Your task to perform on an android device: delete location history Image 0: 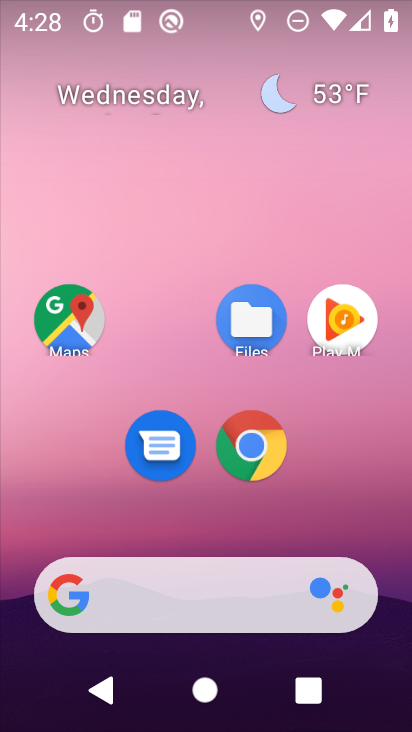
Step 0: drag from (353, 480) to (353, 199)
Your task to perform on an android device: delete location history Image 1: 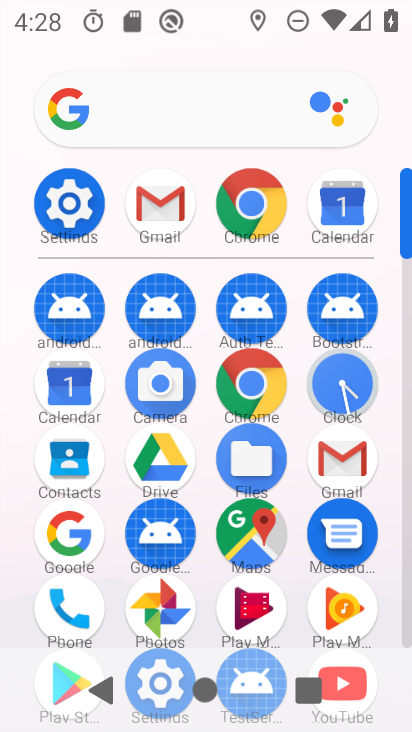
Step 1: click (54, 205)
Your task to perform on an android device: delete location history Image 2: 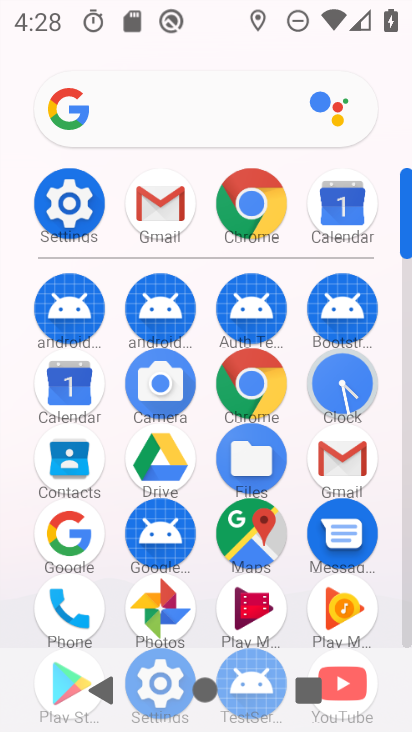
Step 2: click (54, 205)
Your task to perform on an android device: delete location history Image 3: 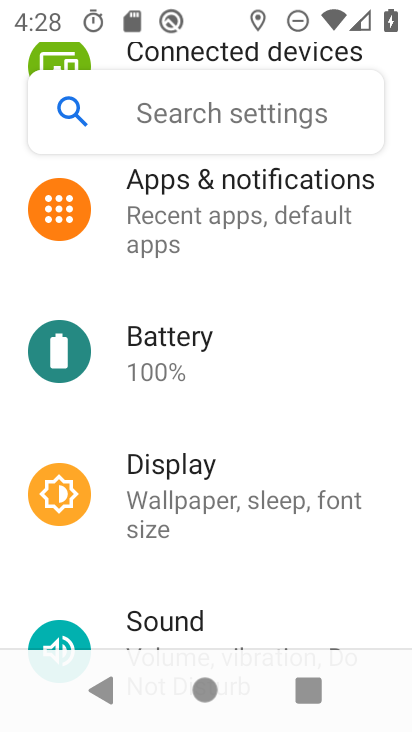
Step 3: drag from (291, 566) to (227, 243)
Your task to perform on an android device: delete location history Image 4: 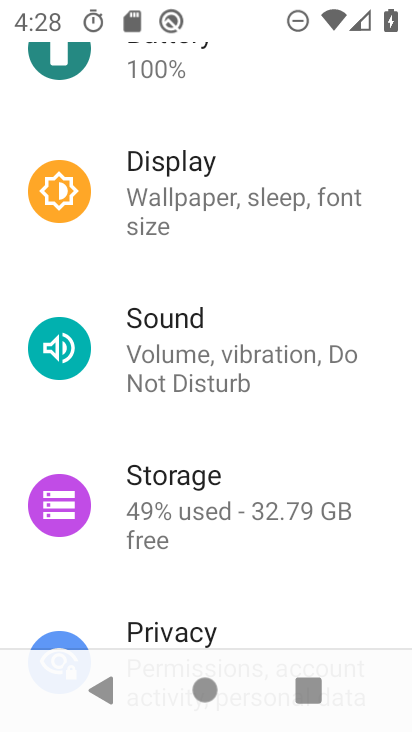
Step 4: drag from (244, 459) to (232, 247)
Your task to perform on an android device: delete location history Image 5: 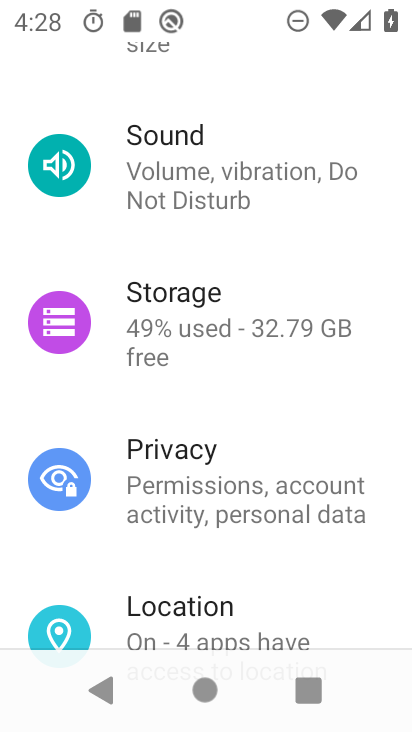
Step 5: click (278, 596)
Your task to perform on an android device: delete location history Image 6: 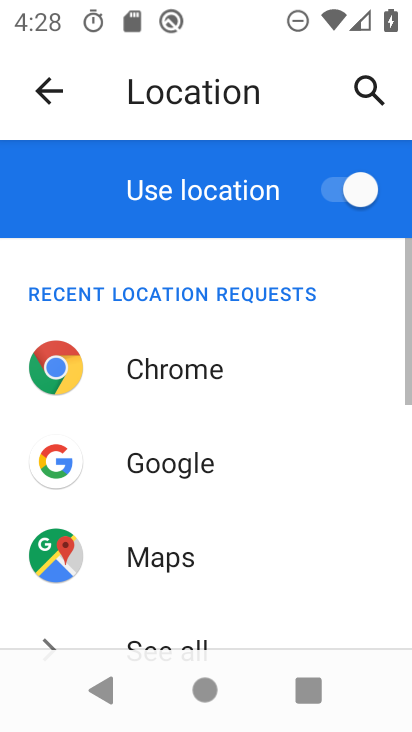
Step 6: drag from (246, 518) to (232, 181)
Your task to perform on an android device: delete location history Image 7: 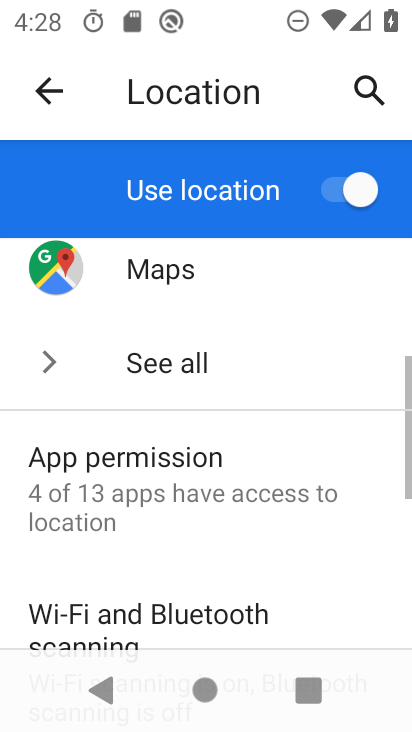
Step 7: drag from (228, 538) to (215, 194)
Your task to perform on an android device: delete location history Image 8: 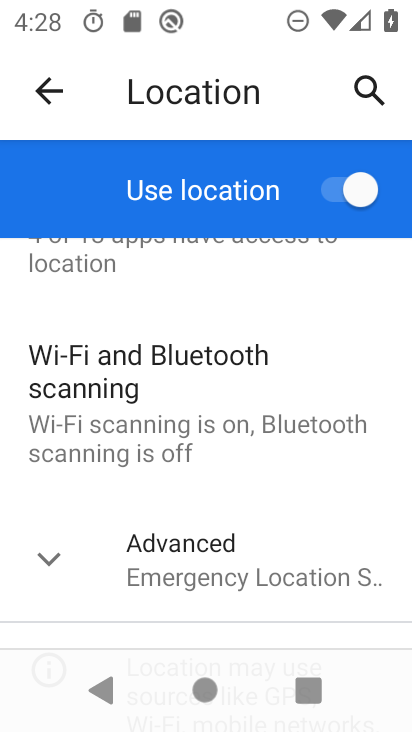
Step 8: click (234, 547)
Your task to perform on an android device: delete location history Image 9: 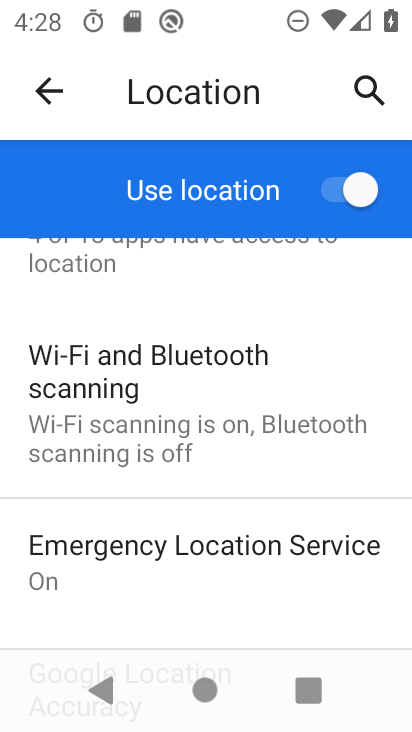
Step 9: drag from (207, 558) to (190, 163)
Your task to perform on an android device: delete location history Image 10: 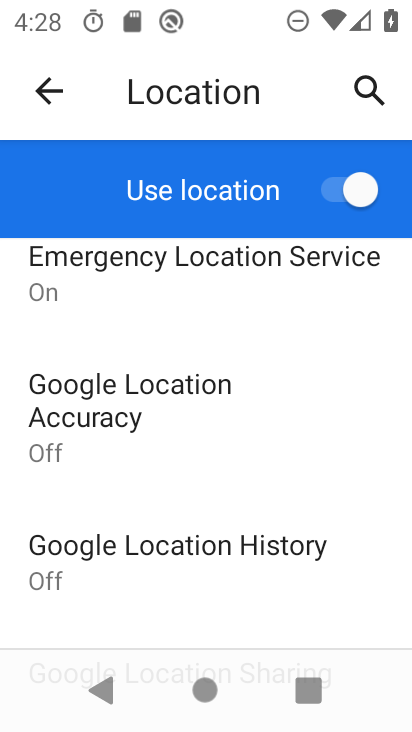
Step 10: click (208, 541)
Your task to perform on an android device: delete location history Image 11: 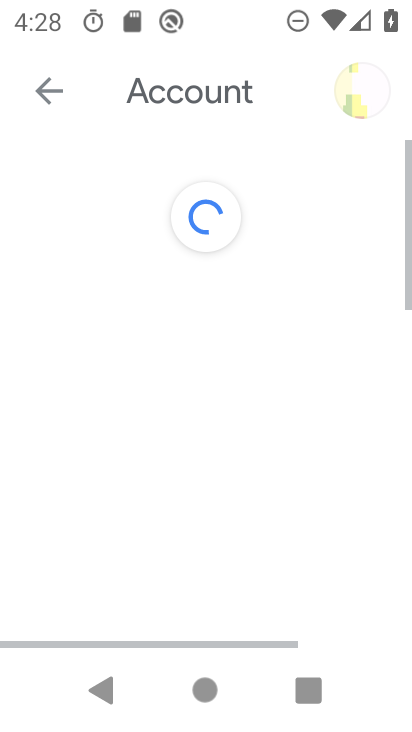
Step 11: drag from (195, 511) to (224, 204)
Your task to perform on an android device: delete location history Image 12: 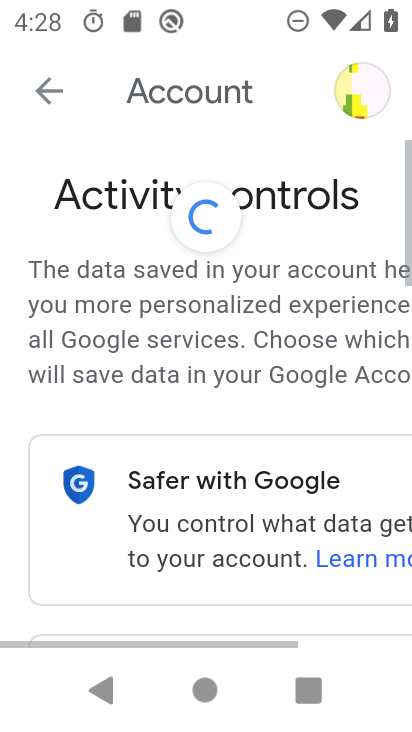
Step 12: drag from (207, 474) to (248, 127)
Your task to perform on an android device: delete location history Image 13: 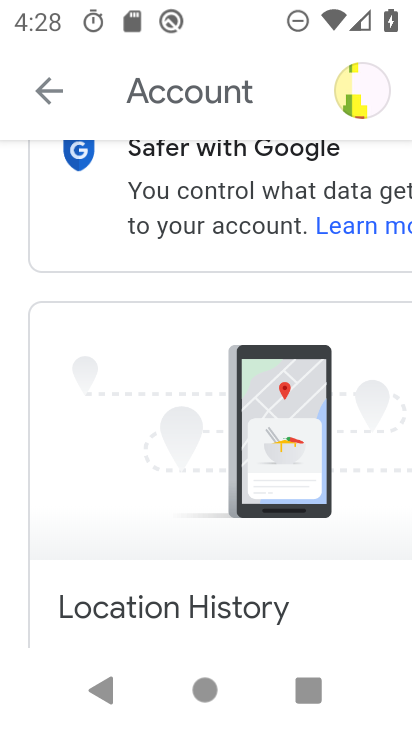
Step 13: drag from (248, 452) to (271, 164)
Your task to perform on an android device: delete location history Image 14: 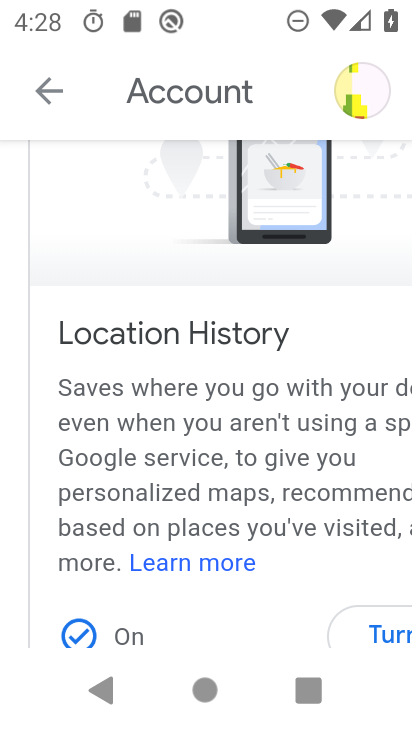
Step 14: drag from (266, 541) to (285, 179)
Your task to perform on an android device: delete location history Image 15: 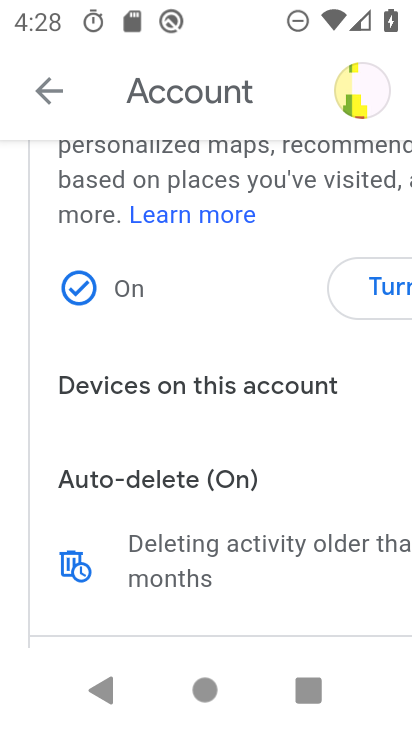
Step 15: click (121, 548)
Your task to perform on an android device: delete location history Image 16: 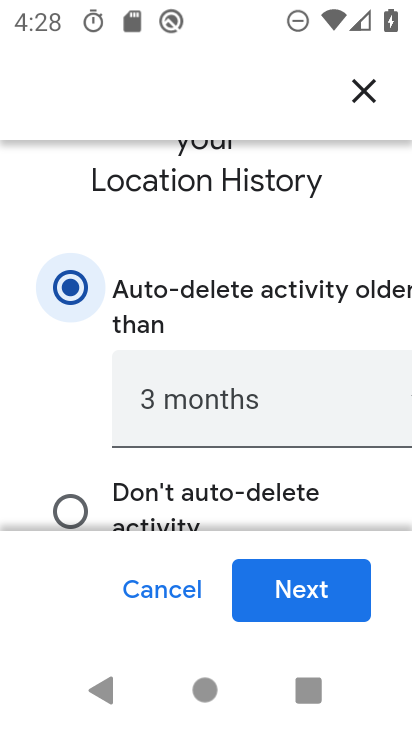
Step 16: click (330, 615)
Your task to perform on an android device: delete location history Image 17: 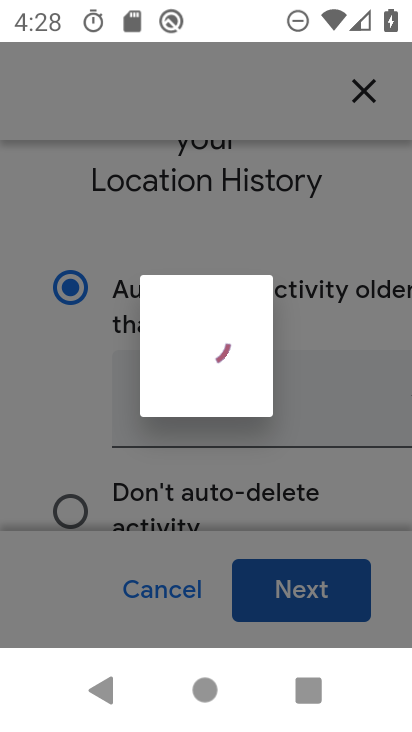
Step 17: click (307, 587)
Your task to perform on an android device: delete location history Image 18: 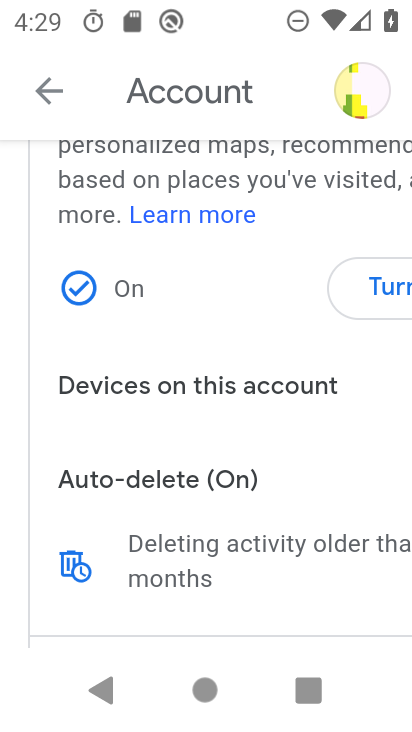
Step 18: task complete